Your task to perform on an android device: Search for a custom made wallet on Etsy Image 0: 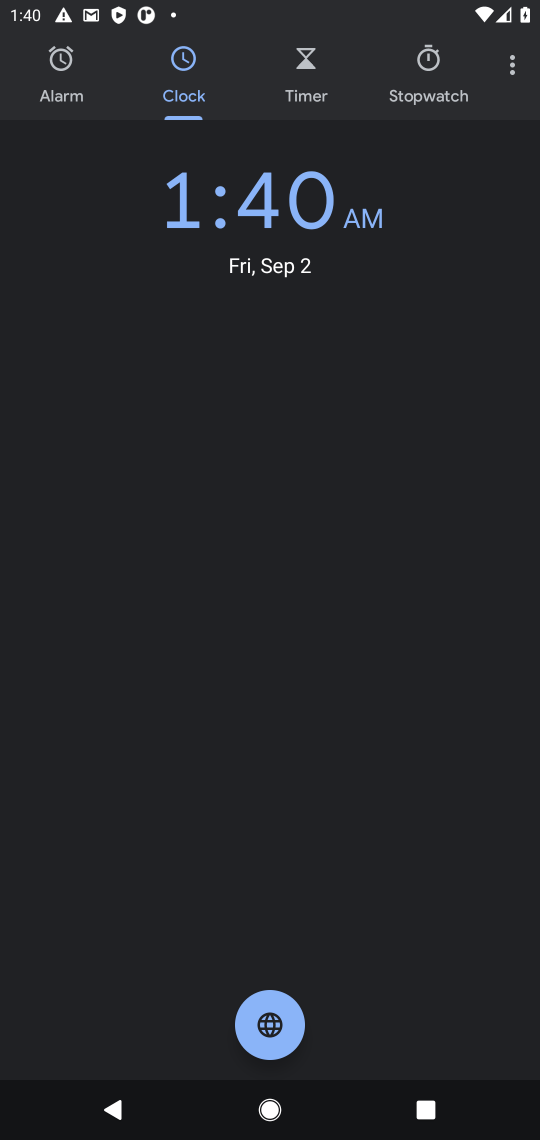
Step 0: press home button
Your task to perform on an android device: Search for a custom made wallet on Etsy Image 1: 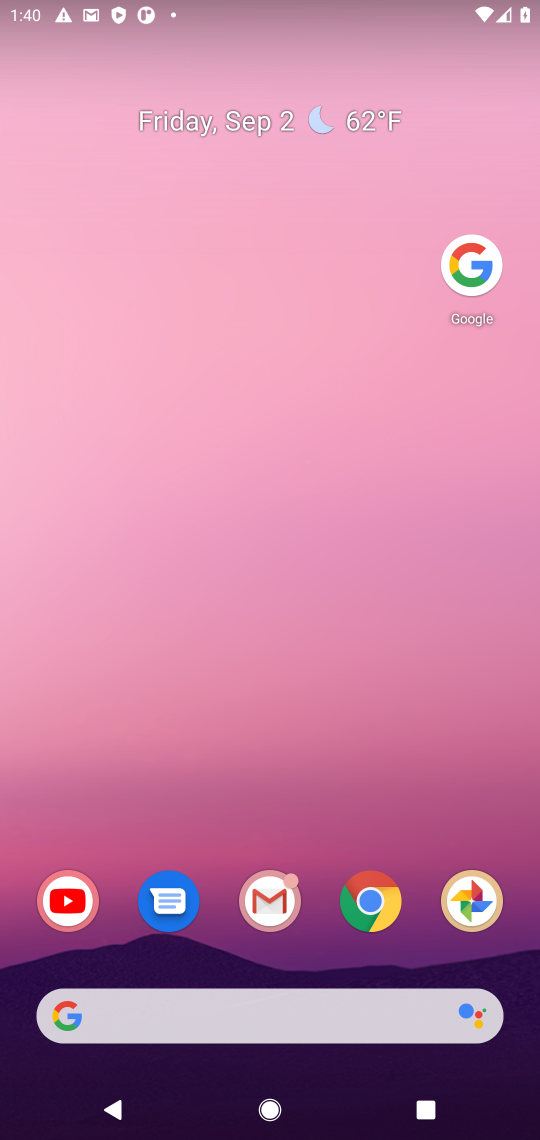
Step 1: click (470, 253)
Your task to perform on an android device: Search for a custom made wallet on Etsy Image 2: 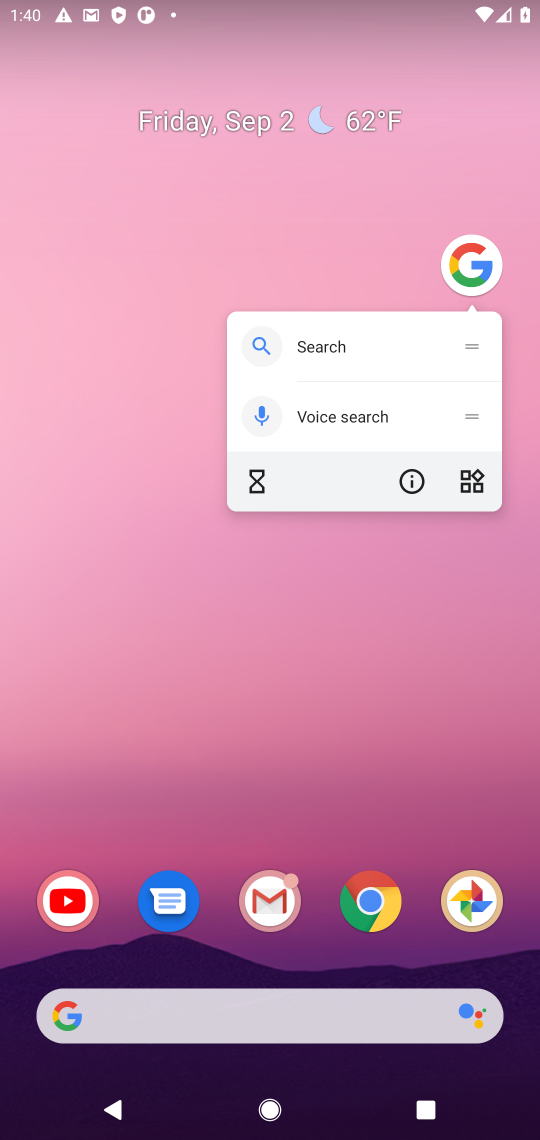
Step 2: click (472, 259)
Your task to perform on an android device: Search for a custom made wallet on Etsy Image 3: 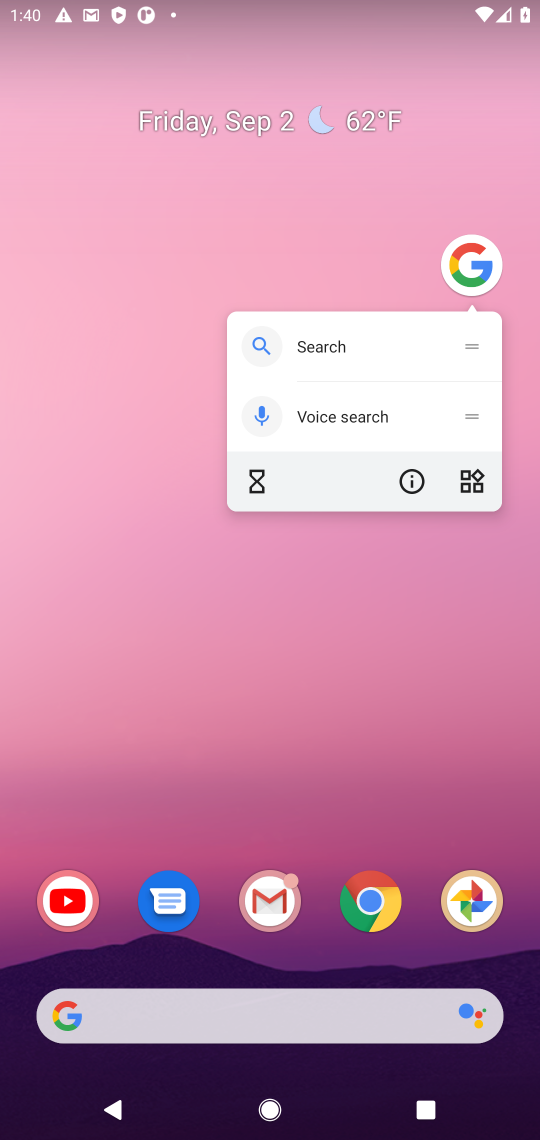
Step 3: click (450, 259)
Your task to perform on an android device: Search for a custom made wallet on Etsy Image 4: 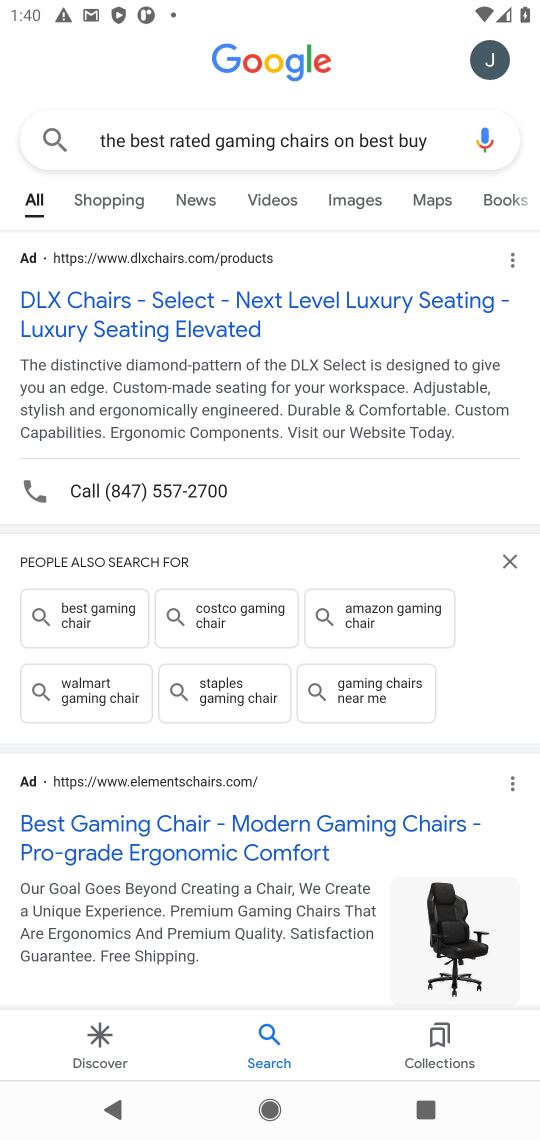
Step 4: click (419, 134)
Your task to perform on an android device: Search for a custom made wallet on Etsy Image 5: 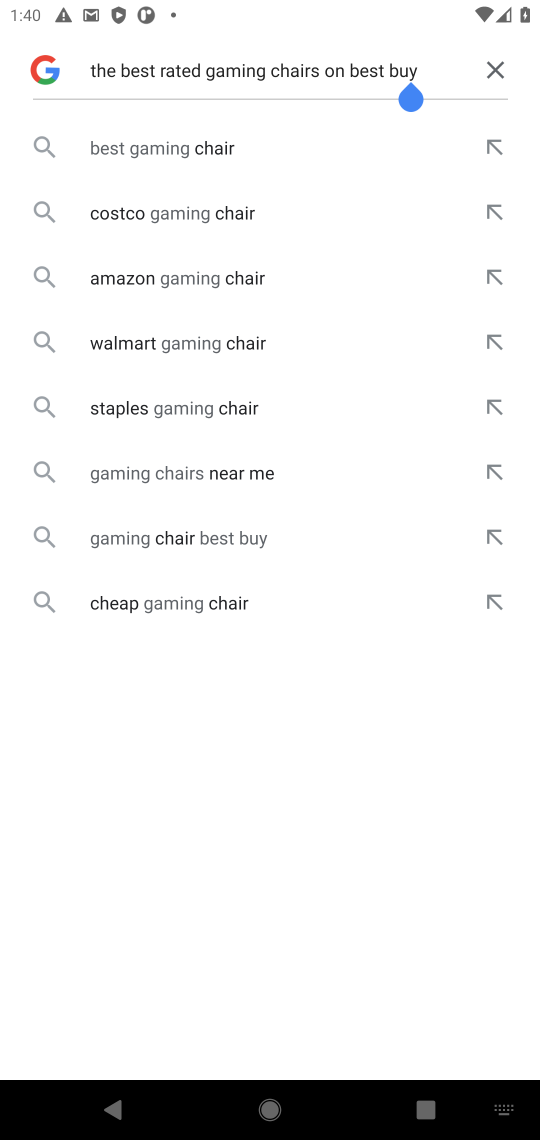
Step 5: click (487, 72)
Your task to perform on an android device: Search for a custom made wallet on Etsy Image 6: 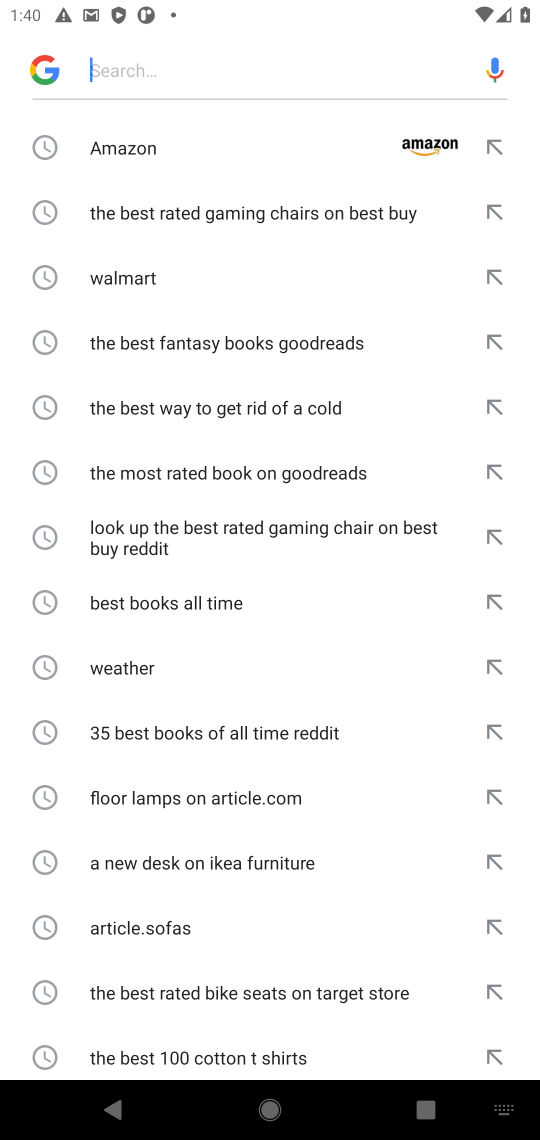
Step 6: click (200, 67)
Your task to perform on an android device: Search for a custom made wallet on Etsy Image 7: 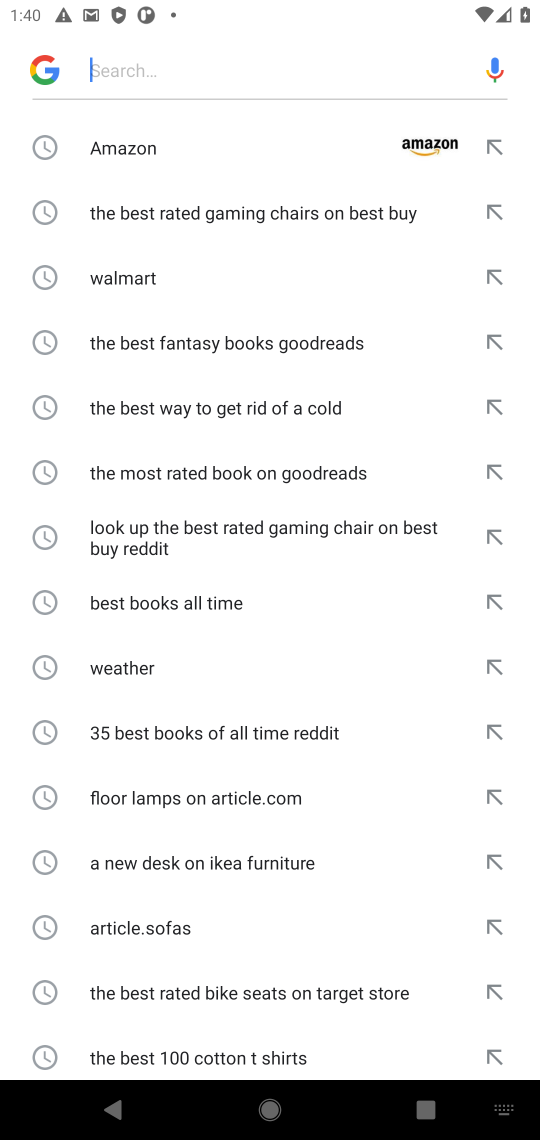
Step 7: type " a custom made wallet on Etsy "
Your task to perform on an android device: Search for a custom made wallet on Etsy Image 8: 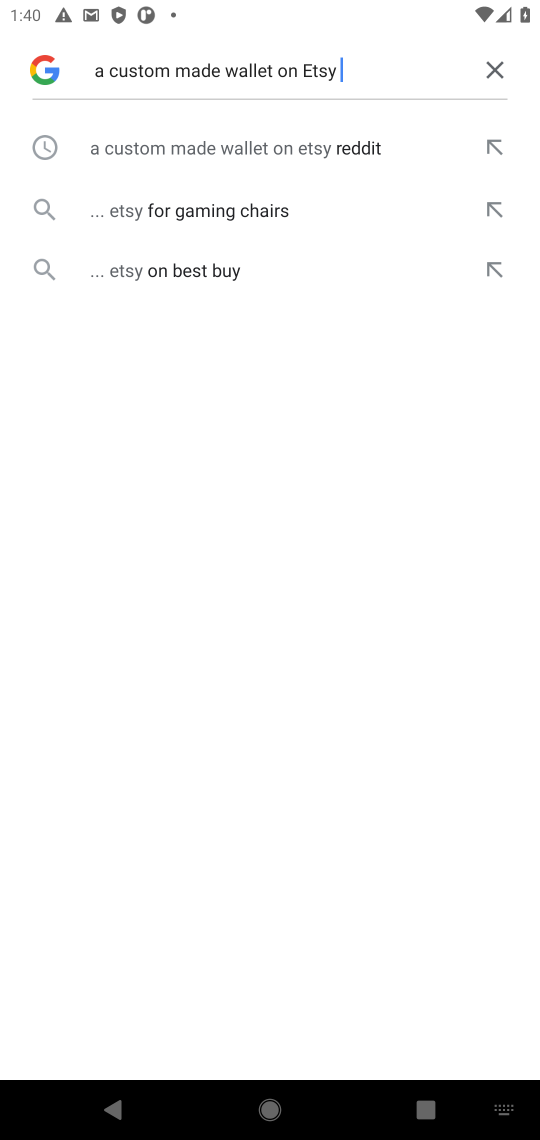
Step 8: click (252, 134)
Your task to perform on an android device: Search for a custom made wallet on Etsy Image 9: 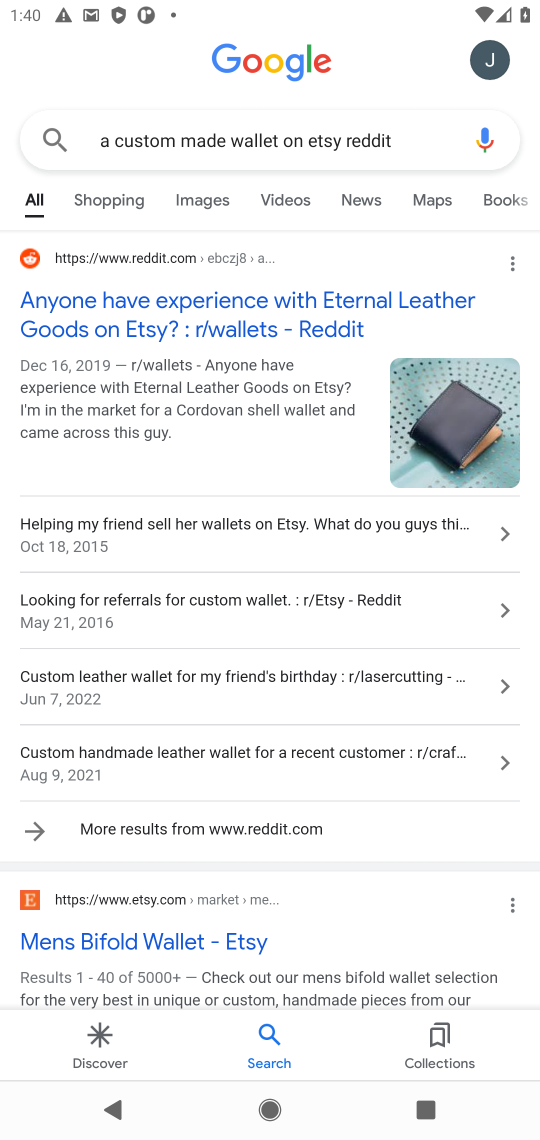
Step 9: drag from (292, 932) to (281, 247)
Your task to perform on an android device: Search for a custom made wallet on Etsy Image 10: 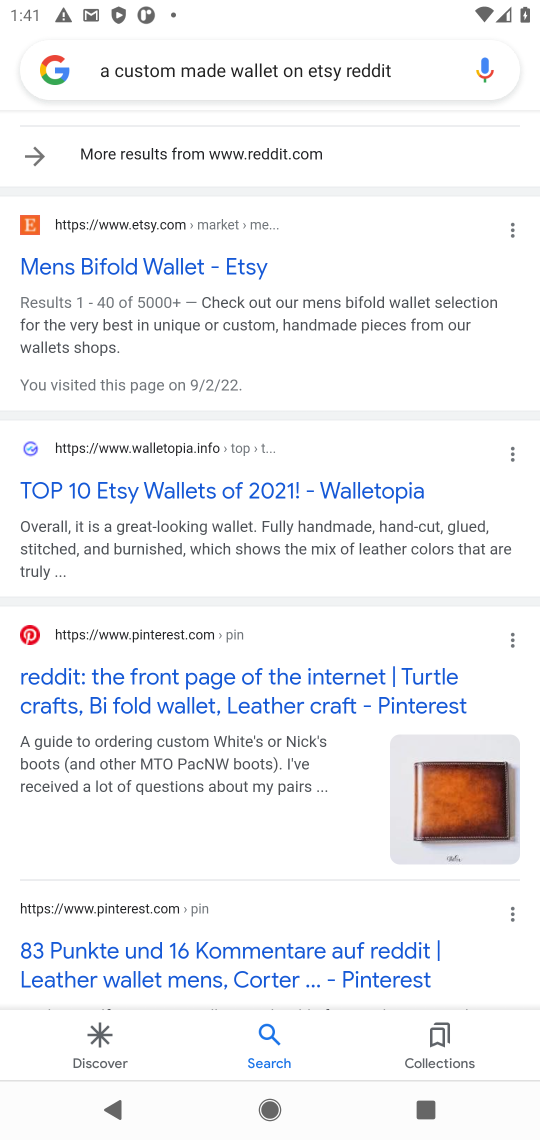
Step 10: click (141, 255)
Your task to perform on an android device: Search for a custom made wallet on Etsy Image 11: 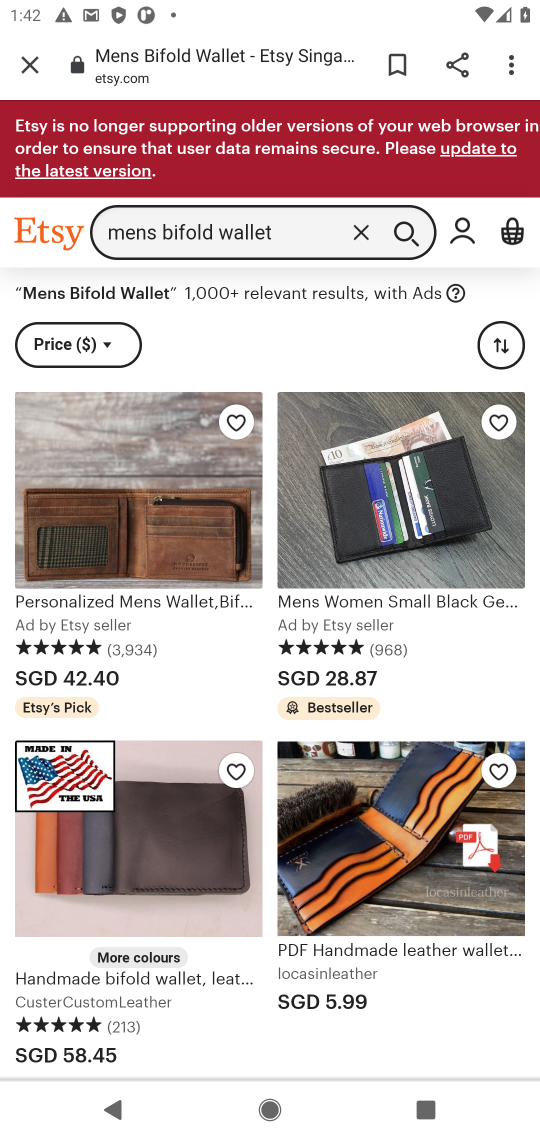
Step 11: task complete